Your task to perform on an android device: read, delete, or share a saved page in the chrome app Image 0: 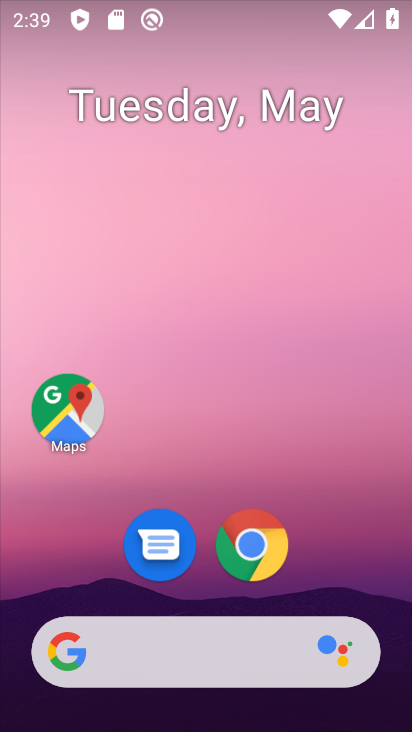
Step 0: click (249, 558)
Your task to perform on an android device: read, delete, or share a saved page in the chrome app Image 1: 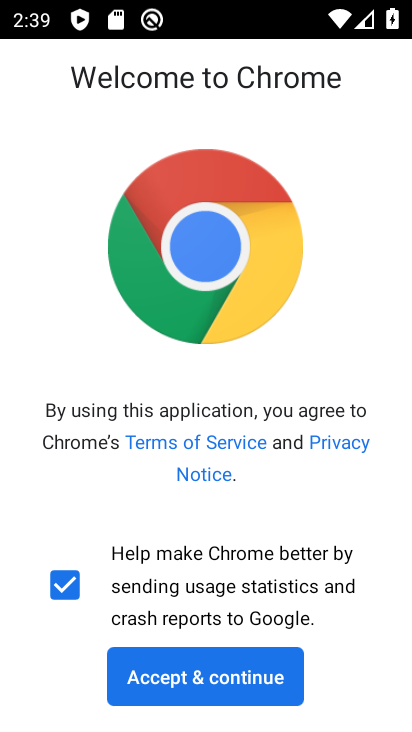
Step 1: click (214, 681)
Your task to perform on an android device: read, delete, or share a saved page in the chrome app Image 2: 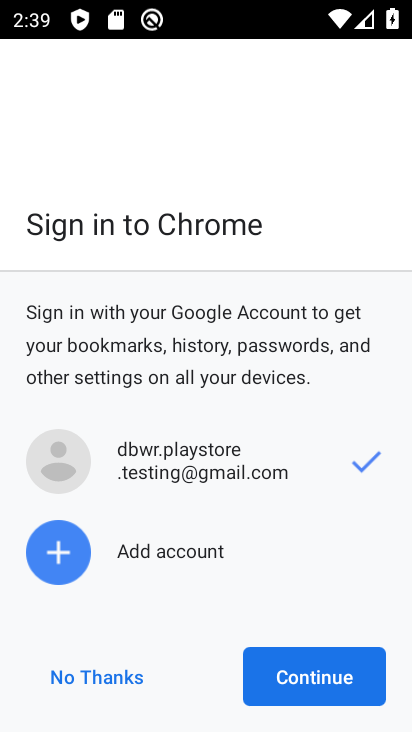
Step 2: click (311, 689)
Your task to perform on an android device: read, delete, or share a saved page in the chrome app Image 3: 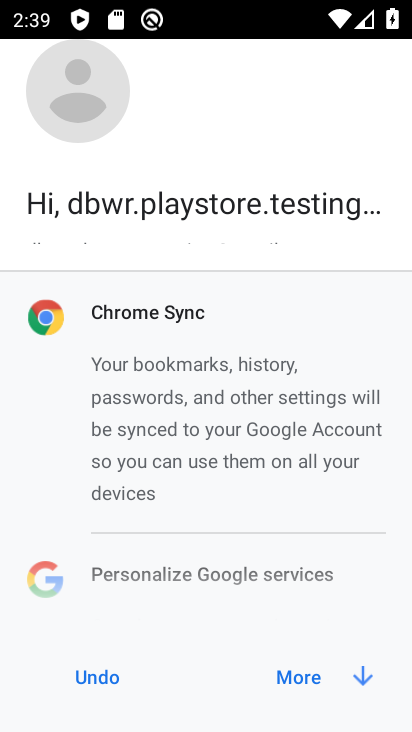
Step 3: click (324, 664)
Your task to perform on an android device: read, delete, or share a saved page in the chrome app Image 4: 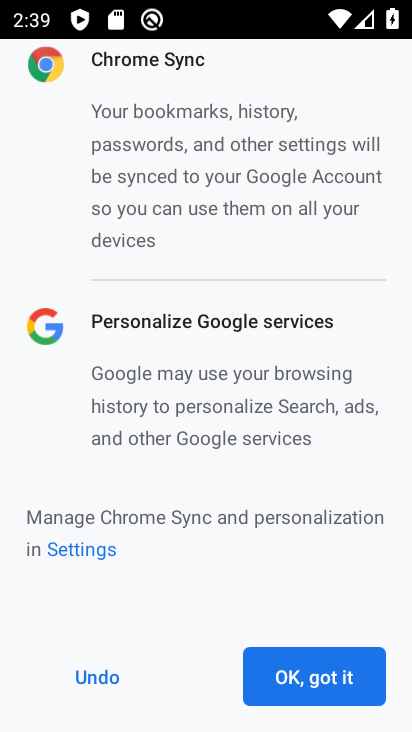
Step 4: click (314, 688)
Your task to perform on an android device: read, delete, or share a saved page in the chrome app Image 5: 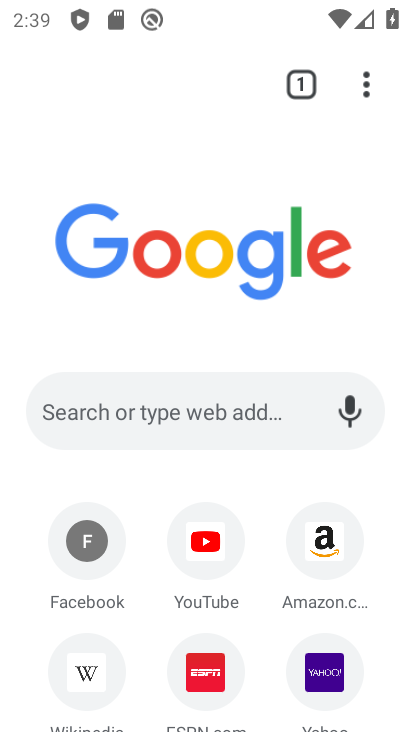
Step 5: drag from (361, 87) to (134, 552)
Your task to perform on an android device: read, delete, or share a saved page in the chrome app Image 6: 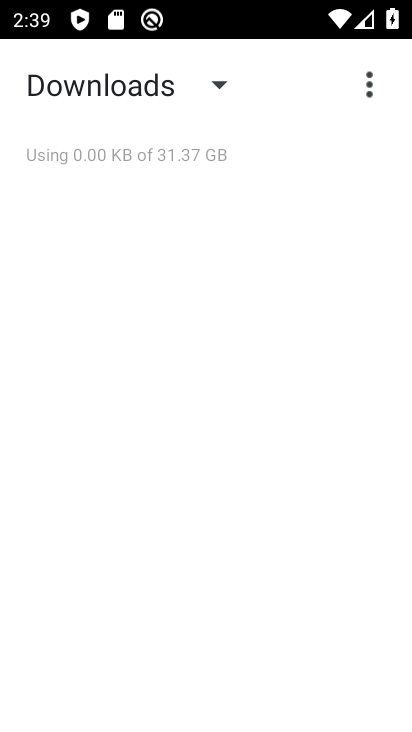
Step 6: click (209, 86)
Your task to perform on an android device: read, delete, or share a saved page in the chrome app Image 7: 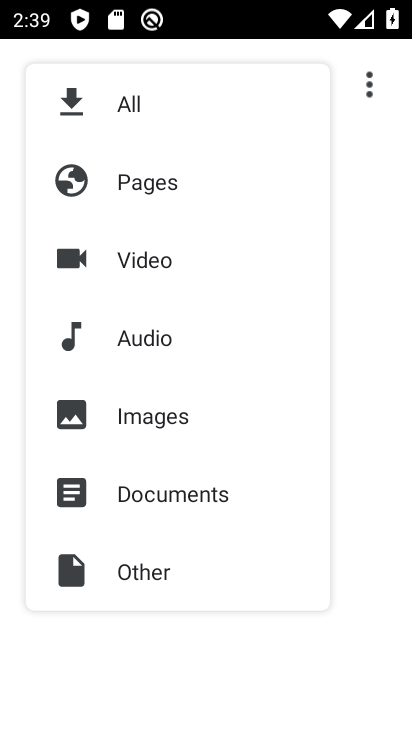
Step 7: task complete